Your task to perform on an android device: toggle pop-ups in chrome Image 0: 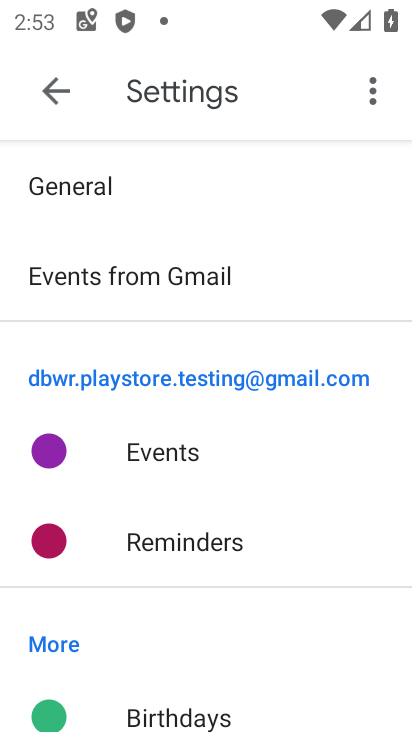
Step 0: press back button
Your task to perform on an android device: toggle pop-ups in chrome Image 1: 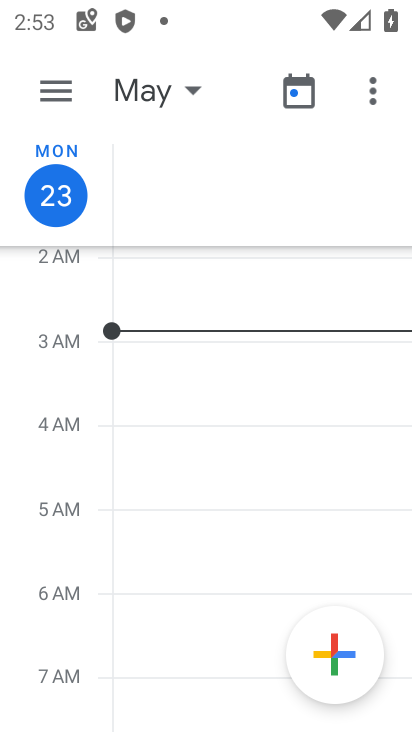
Step 1: press back button
Your task to perform on an android device: toggle pop-ups in chrome Image 2: 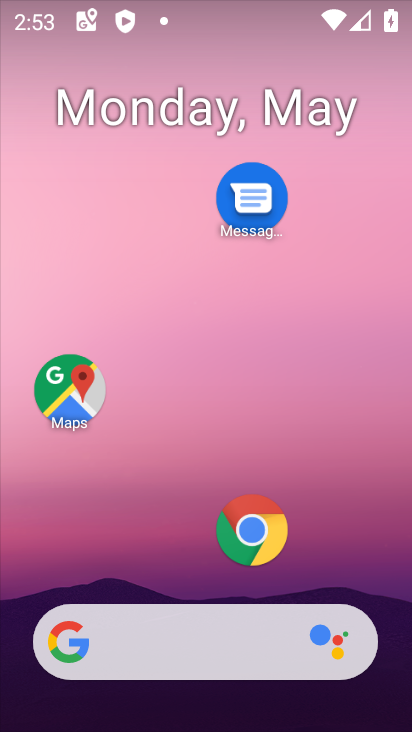
Step 2: click (254, 528)
Your task to perform on an android device: toggle pop-ups in chrome Image 3: 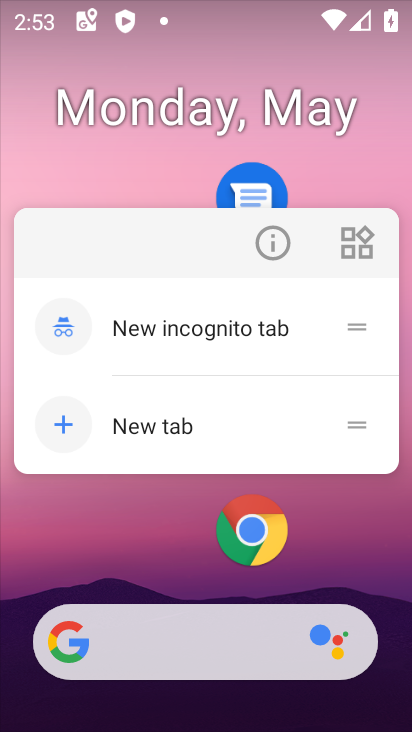
Step 3: click (257, 529)
Your task to perform on an android device: toggle pop-ups in chrome Image 4: 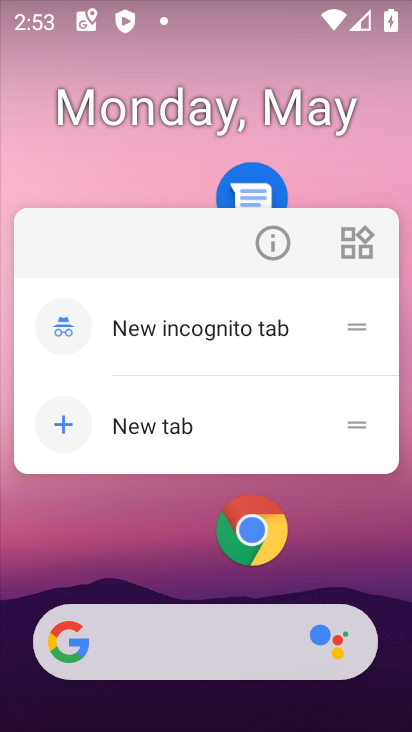
Step 4: click (270, 526)
Your task to perform on an android device: toggle pop-ups in chrome Image 5: 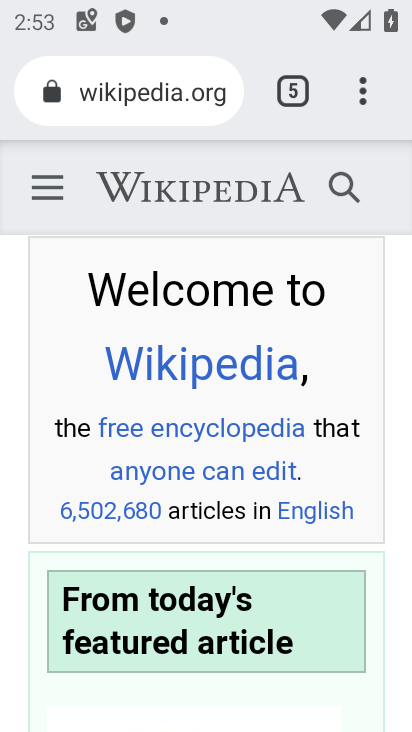
Step 5: drag from (369, 89) to (102, 558)
Your task to perform on an android device: toggle pop-ups in chrome Image 6: 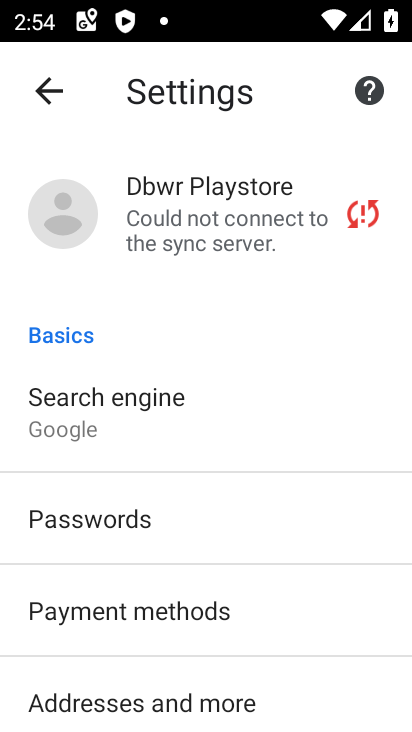
Step 6: drag from (218, 640) to (306, 189)
Your task to perform on an android device: toggle pop-ups in chrome Image 7: 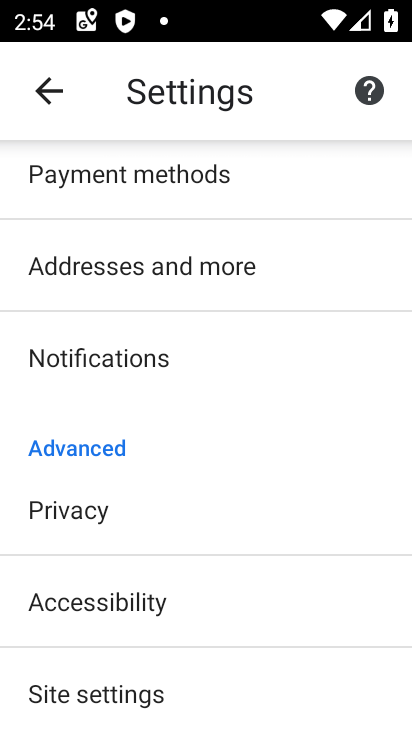
Step 7: drag from (306, 242) to (293, 127)
Your task to perform on an android device: toggle pop-ups in chrome Image 8: 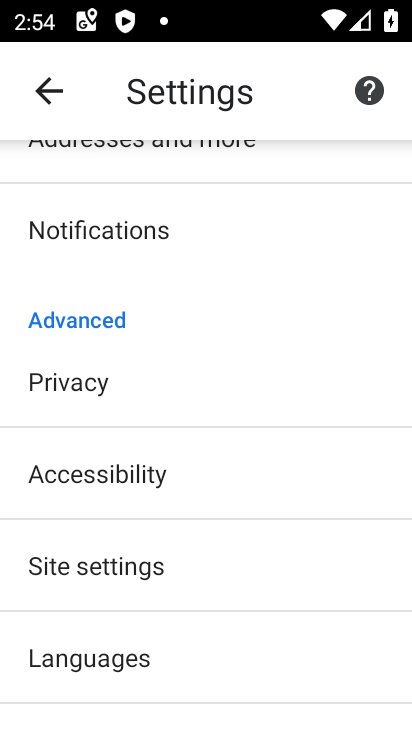
Step 8: click (55, 546)
Your task to perform on an android device: toggle pop-ups in chrome Image 9: 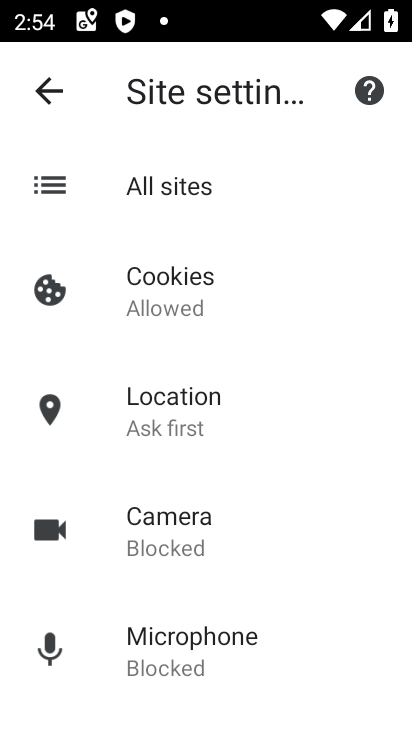
Step 9: drag from (199, 660) to (262, 267)
Your task to perform on an android device: toggle pop-ups in chrome Image 10: 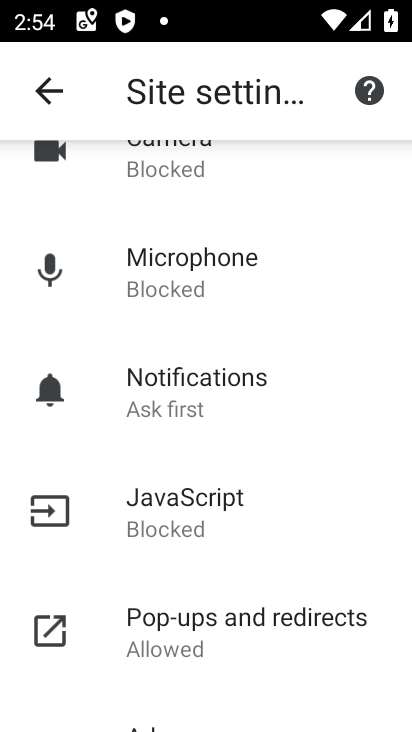
Step 10: click (180, 632)
Your task to perform on an android device: toggle pop-ups in chrome Image 11: 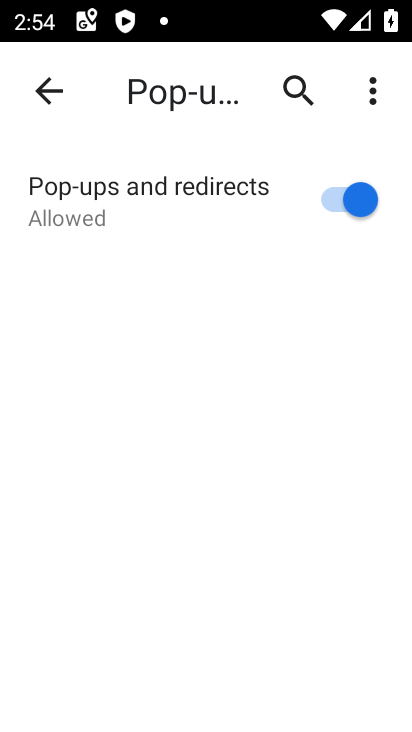
Step 11: task complete